Your task to perform on an android device: check android version Image 0: 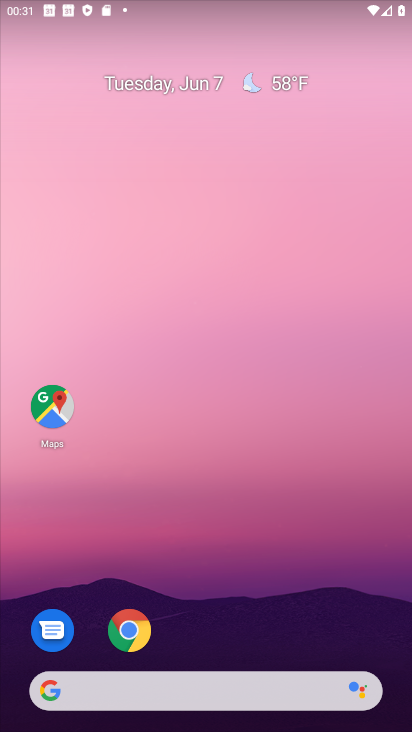
Step 0: drag from (249, 570) to (250, 136)
Your task to perform on an android device: check android version Image 1: 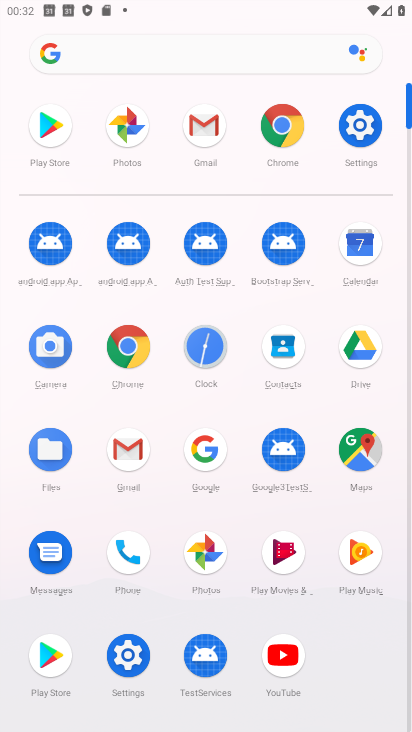
Step 1: click (129, 657)
Your task to perform on an android device: check android version Image 2: 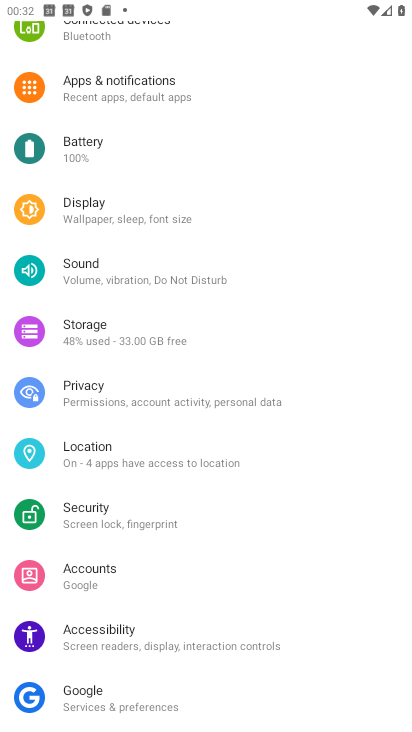
Step 2: drag from (152, 673) to (196, 293)
Your task to perform on an android device: check android version Image 3: 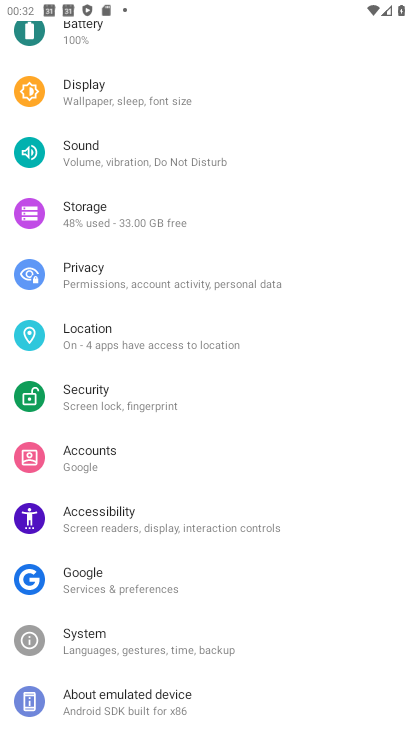
Step 3: click (120, 698)
Your task to perform on an android device: check android version Image 4: 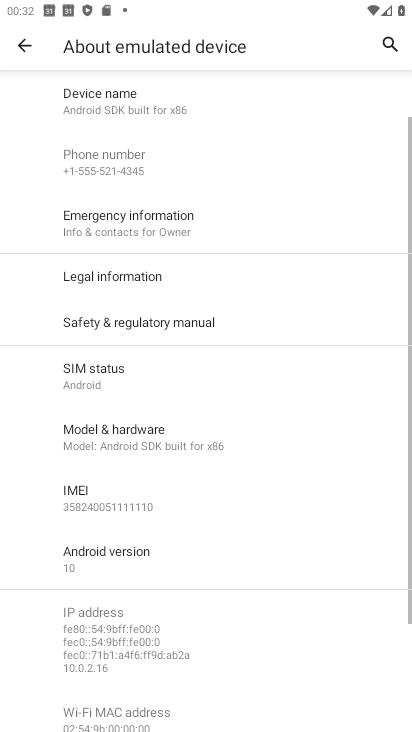
Step 4: click (137, 558)
Your task to perform on an android device: check android version Image 5: 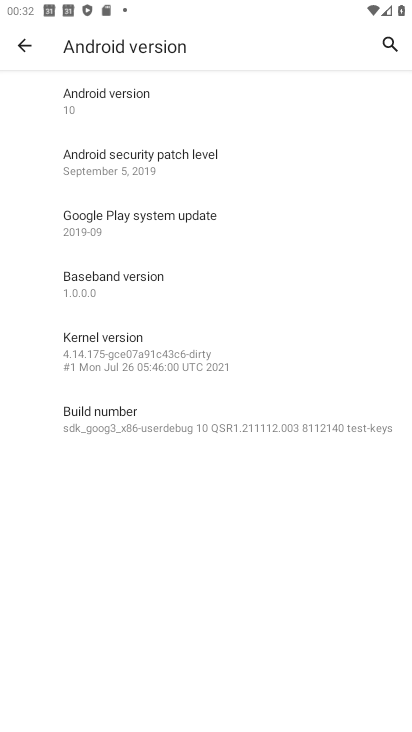
Step 5: task complete